Your task to perform on an android device: Open Amazon Image 0: 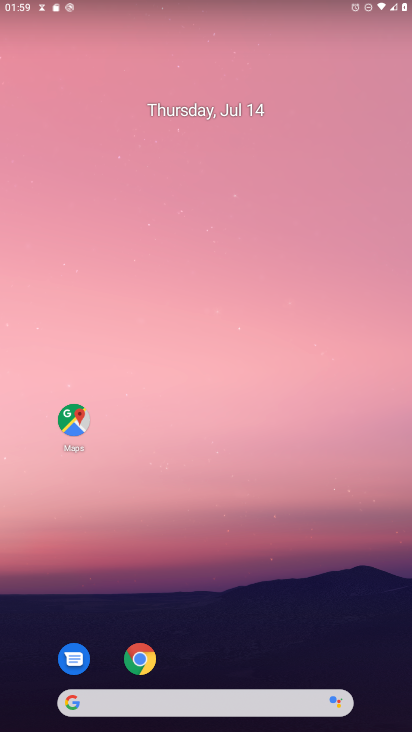
Step 0: click (97, 697)
Your task to perform on an android device: Open Amazon Image 1: 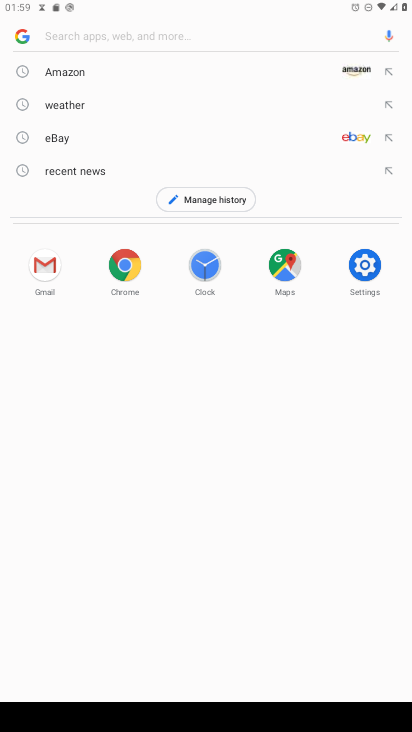
Step 1: click (77, 67)
Your task to perform on an android device: Open Amazon Image 2: 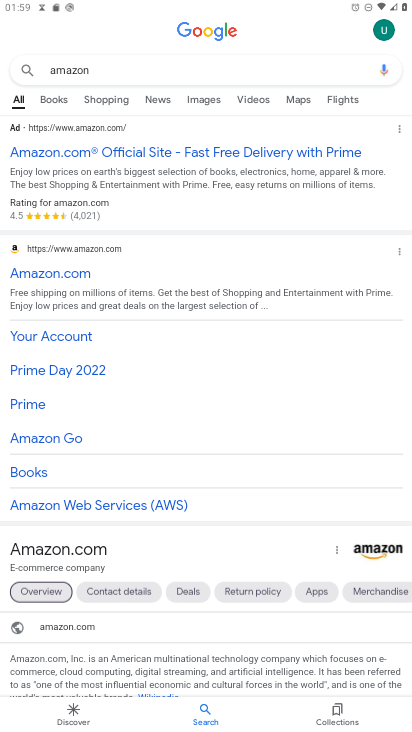
Step 2: task complete